Your task to perform on an android device: Open display settings Image 0: 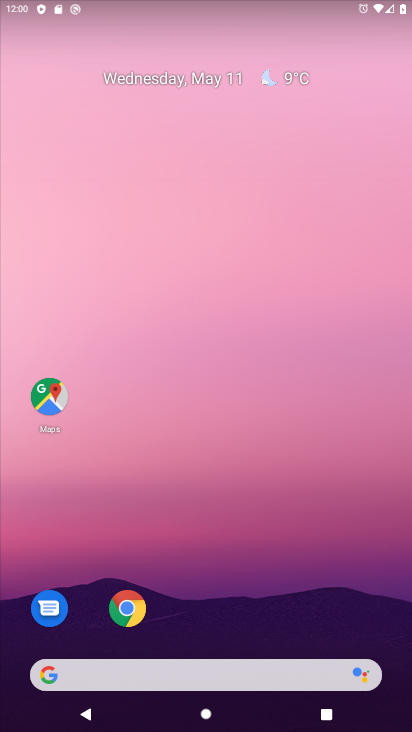
Step 0: drag from (239, 657) to (288, 241)
Your task to perform on an android device: Open display settings Image 1: 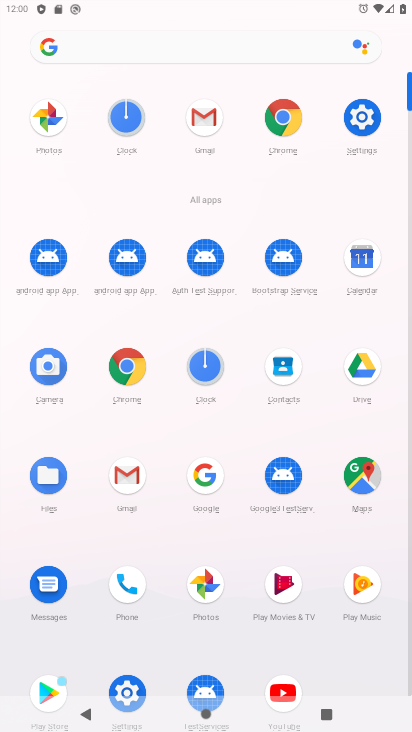
Step 1: click (368, 144)
Your task to perform on an android device: Open display settings Image 2: 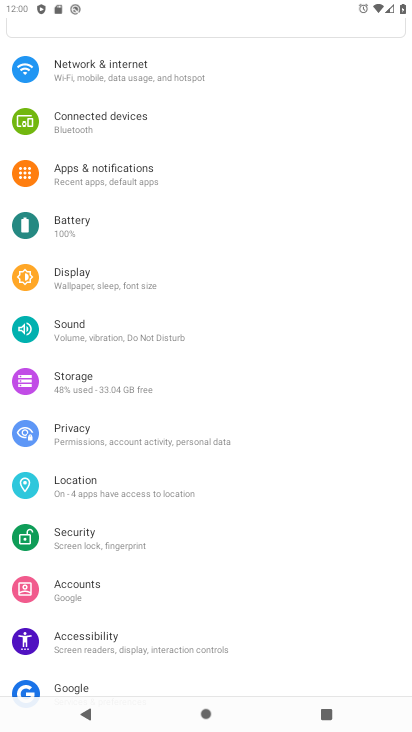
Step 2: drag from (257, 478) to (278, 253)
Your task to perform on an android device: Open display settings Image 3: 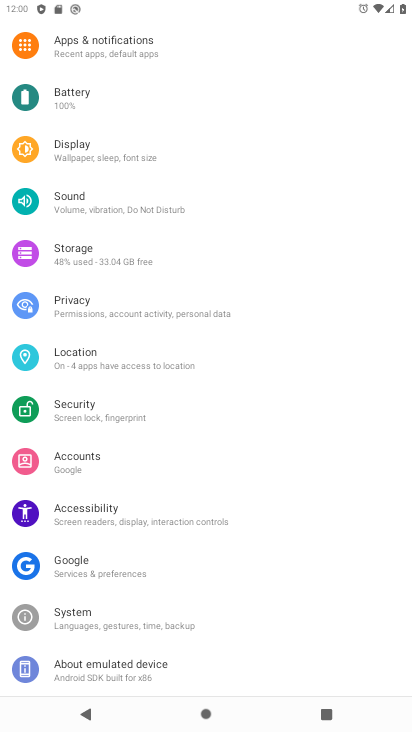
Step 3: click (214, 162)
Your task to perform on an android device: Open display settings Image 4: 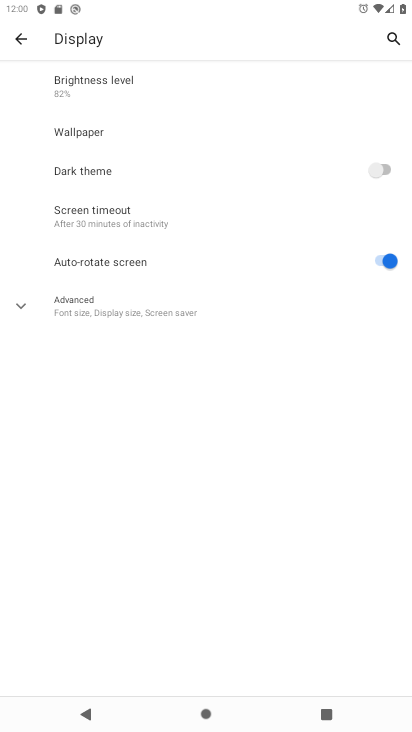
Step 4: click (192, 300)
Your task to perform on an android device: Open display settings Image 5: 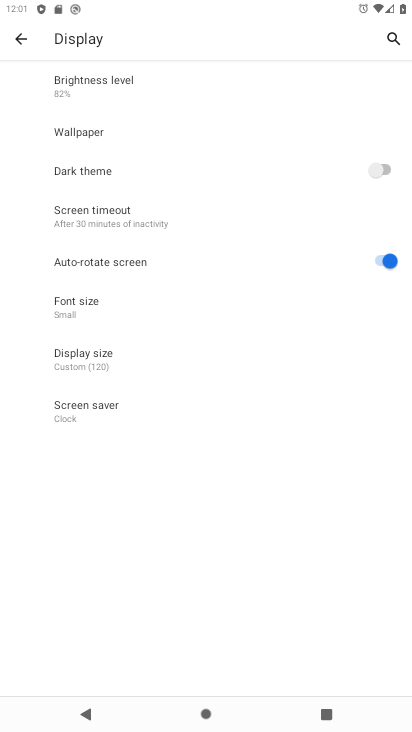
Step 5: task complete